Your task to perform on an android device: set the timer Image 0: 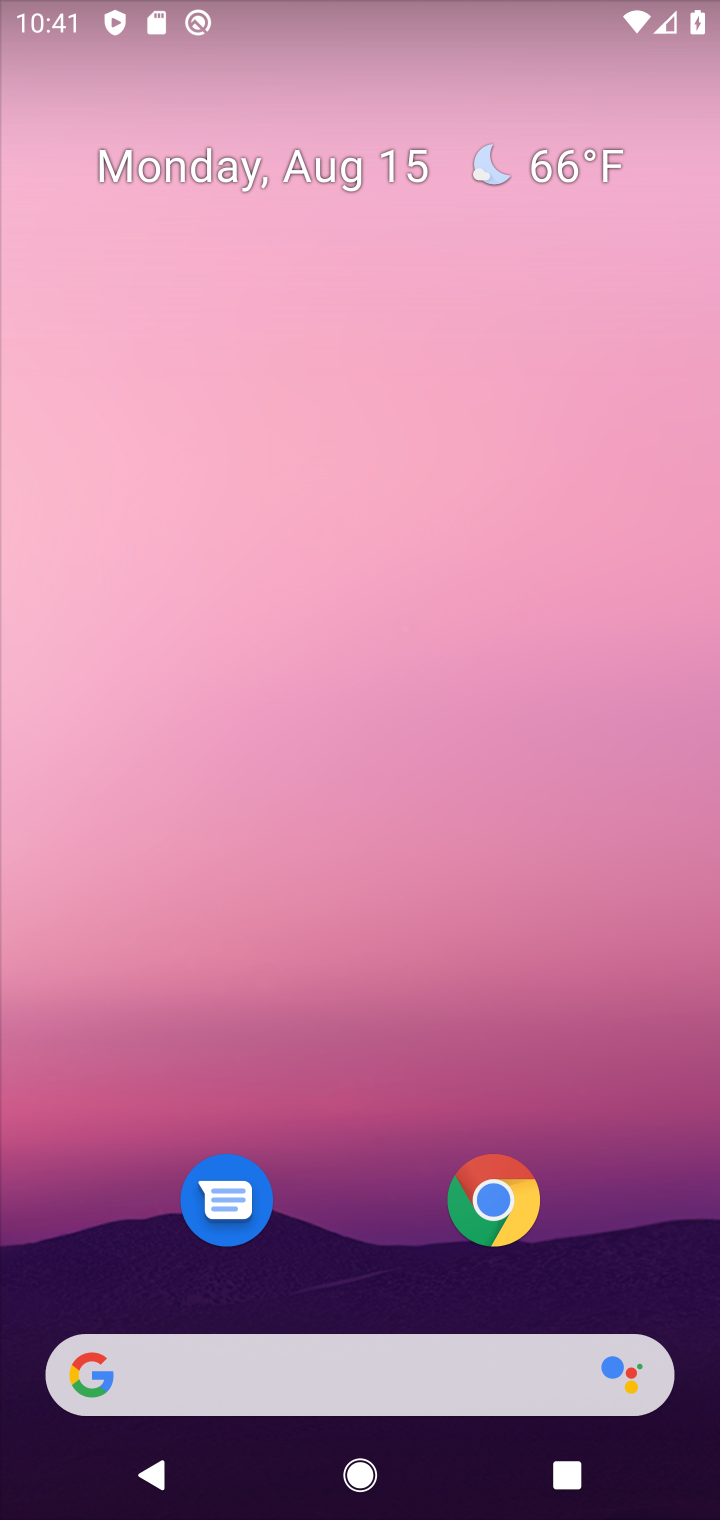
Step 0: drag from (365, 1196) to (370, 404)
Your task to perform on an android device: set the timer Image 1: 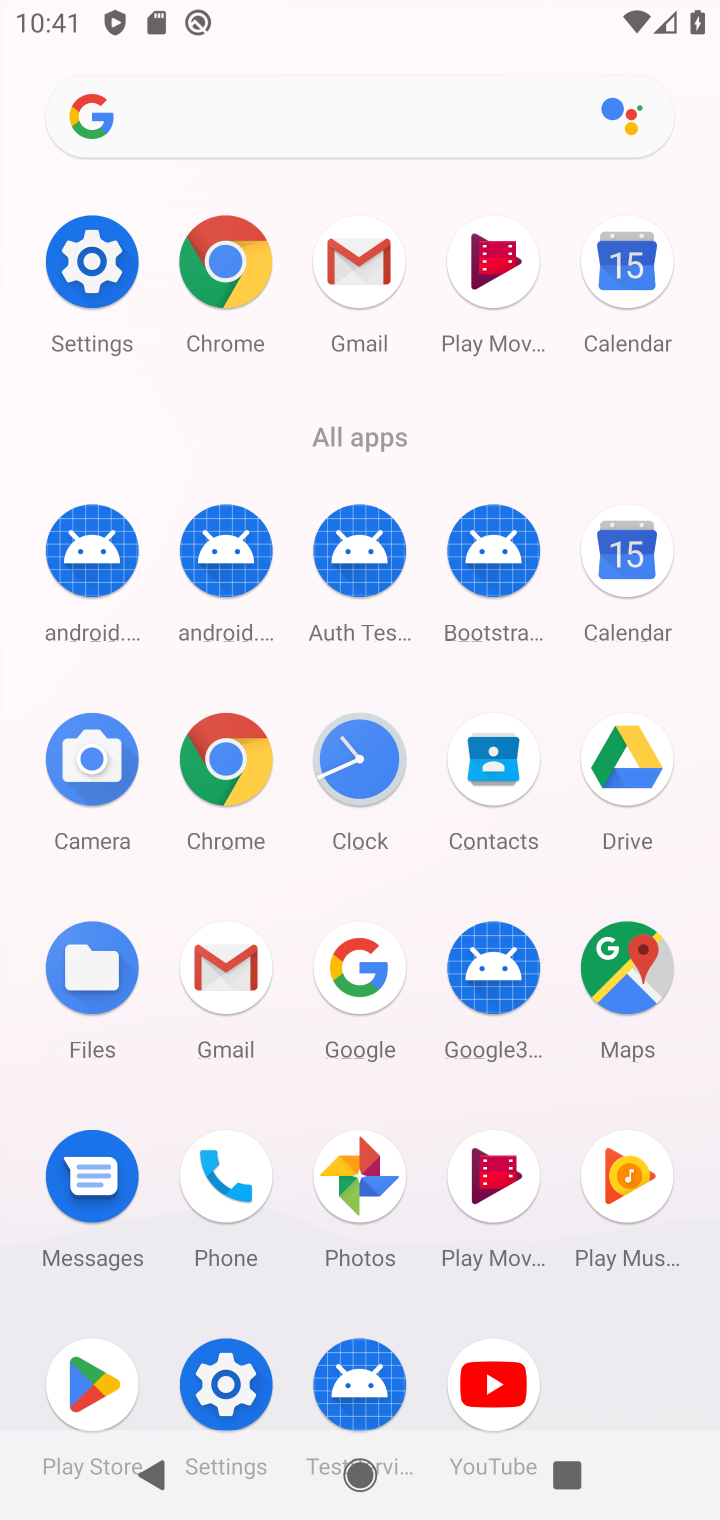
Step 1: click (362, 756)
Your task to perform on an android device: set the timer Image 2: 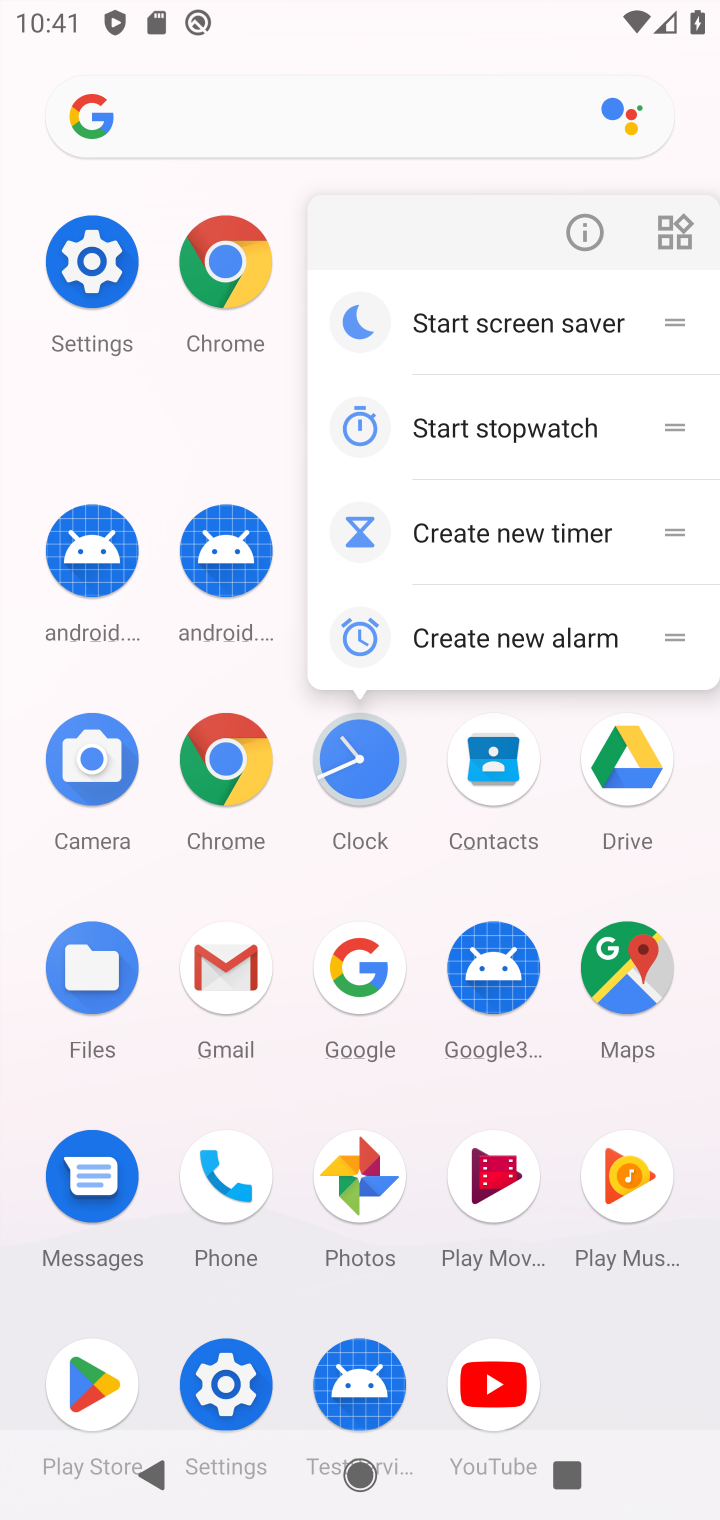
Step 2: click (355, 795)
Your task to perform on an android device: set the timer Image 3: 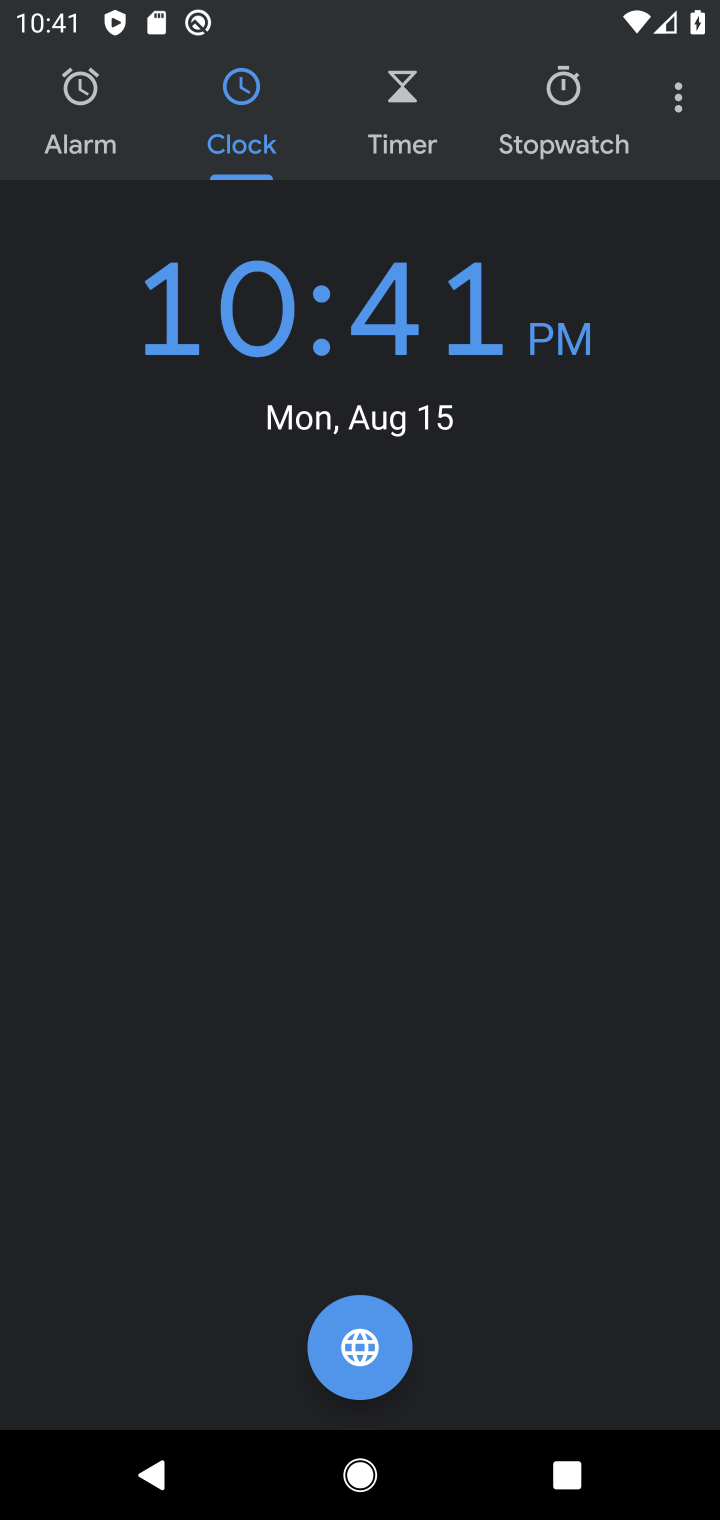
Step 3: click (384, 112)
Your task to perform on an android device: set the timer Image 4: 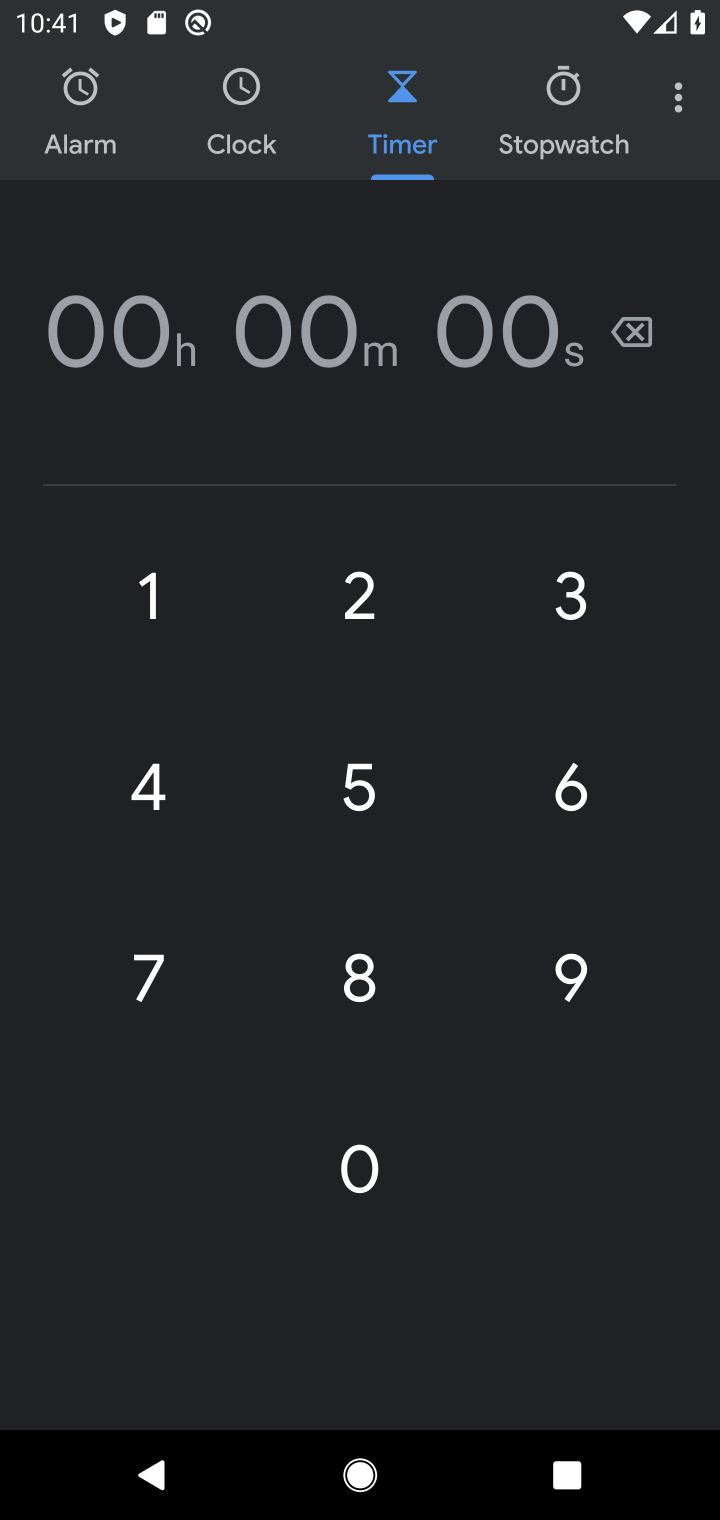
Step 4: click (361, 975)
Your task to perform on an android device: set the timer Image 5: 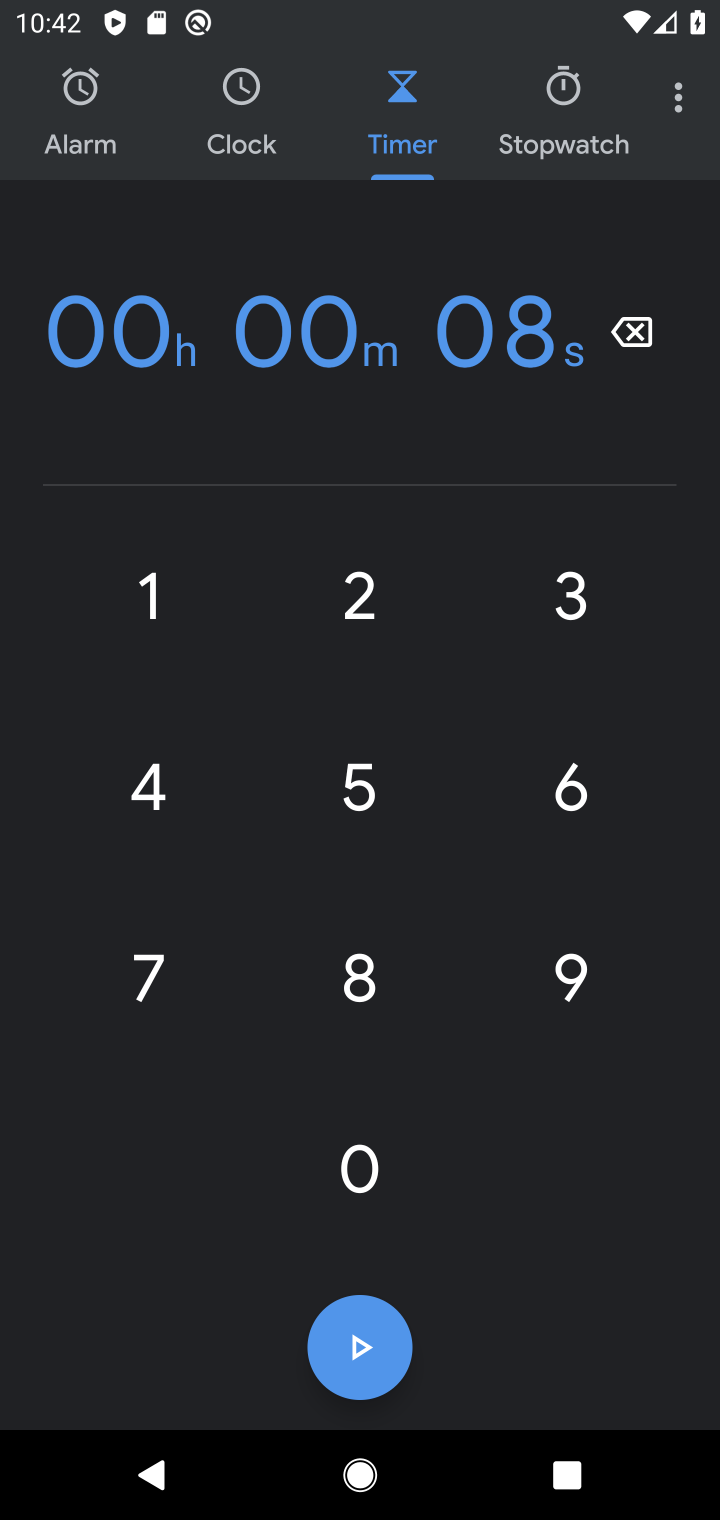
Step 5: click (128, 968)
Your task to perform on an android device: set the timer Image 6: 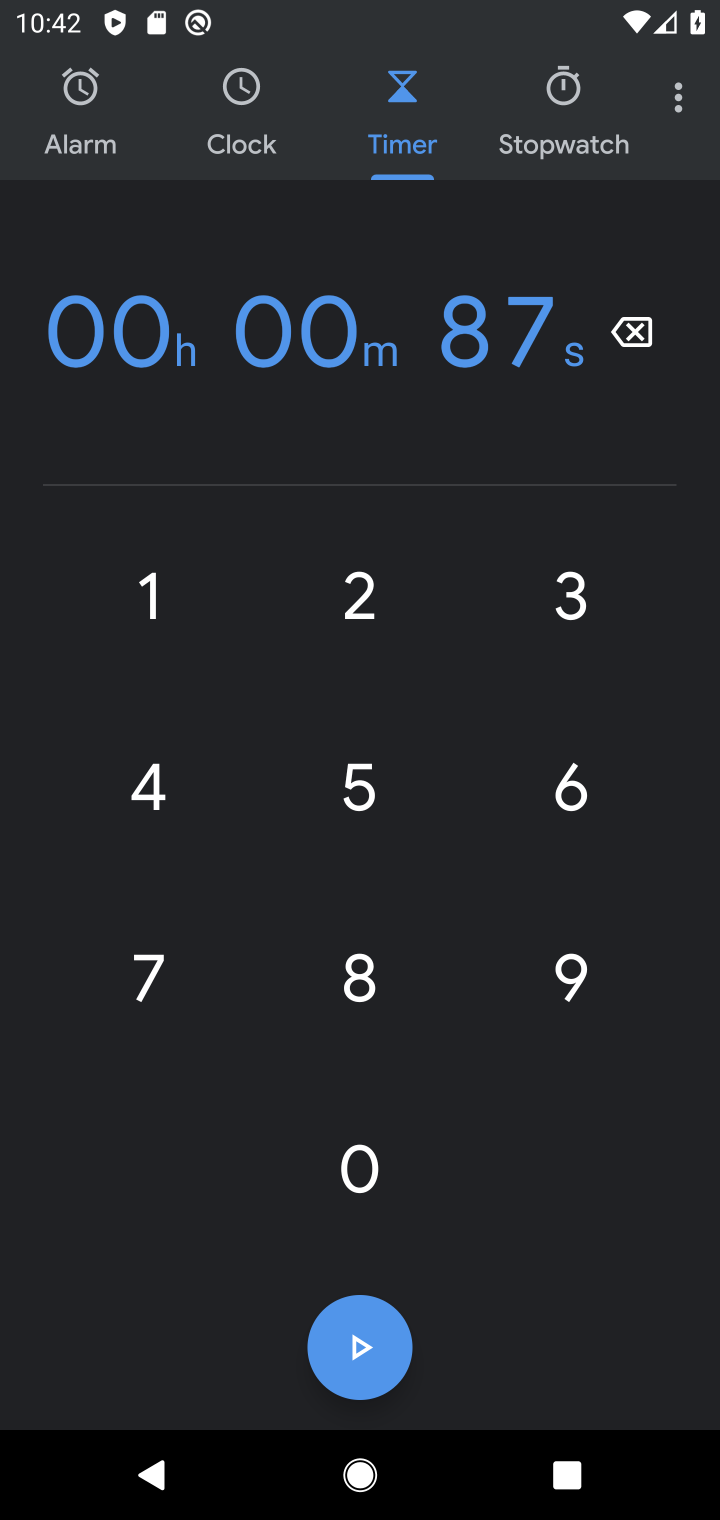
Step 6: click (135, 732)
Your task to perform on an android device: set the timer Image 7: 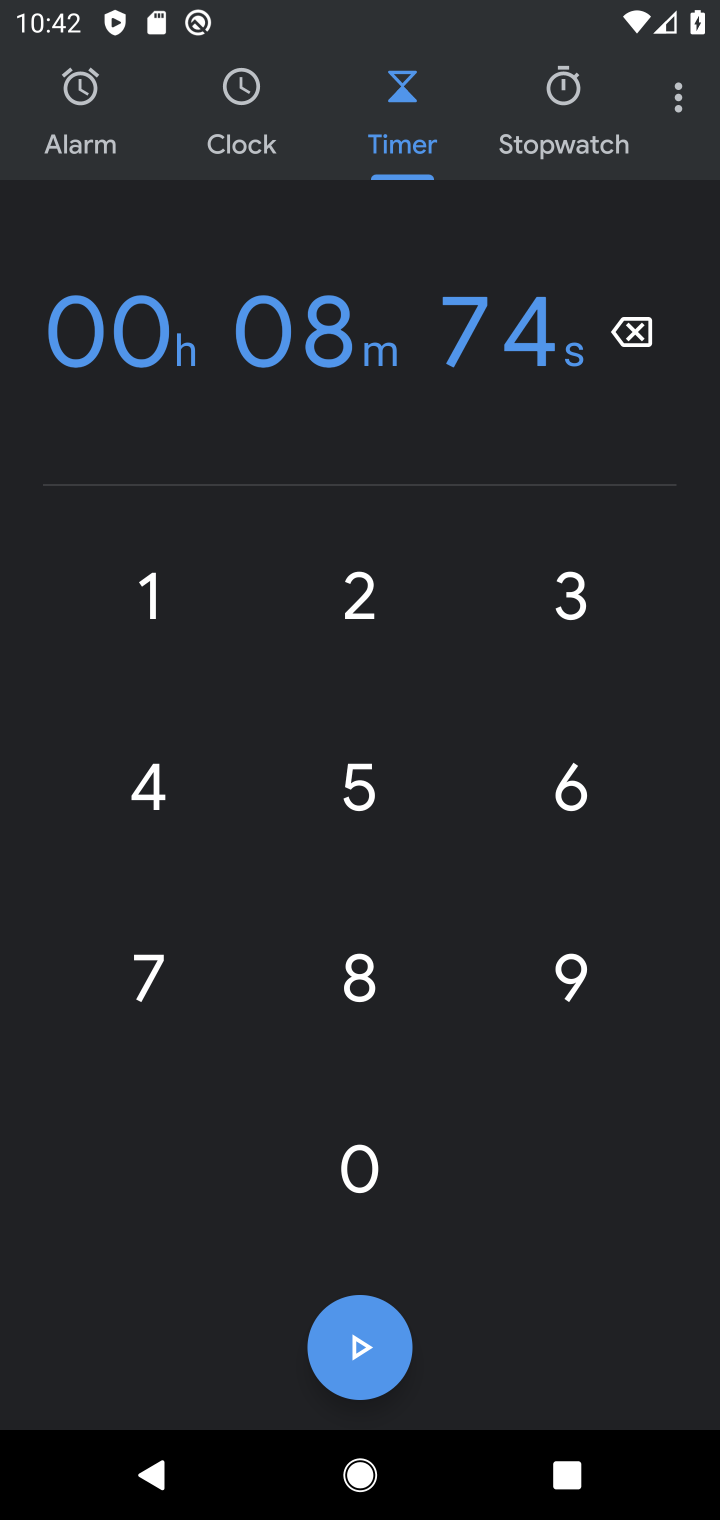
Step 7: click (352, 1291)
Your task to perform on an android device: set the timer Image 8: 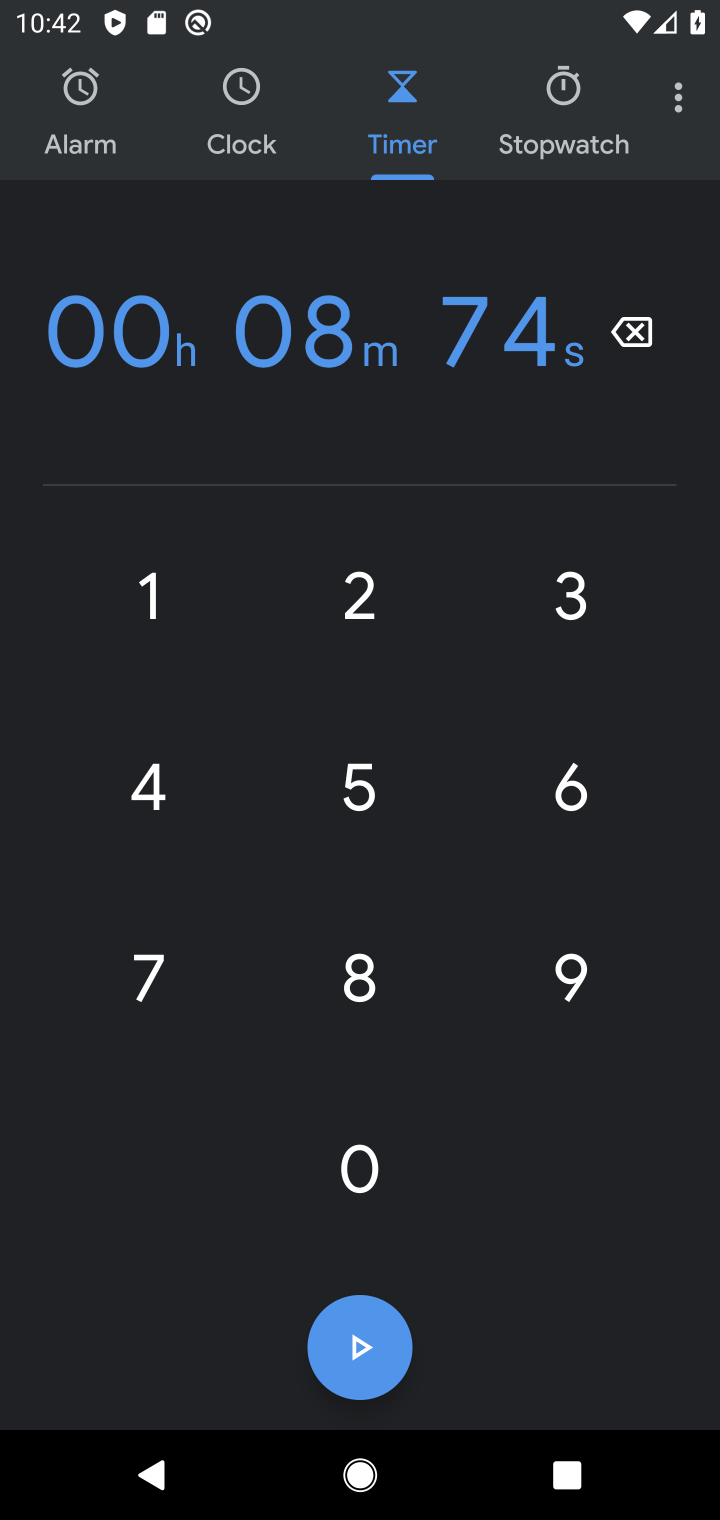
Step 8: click (375, 1333)
Your task to perform on an android device: set the timer Image 9: 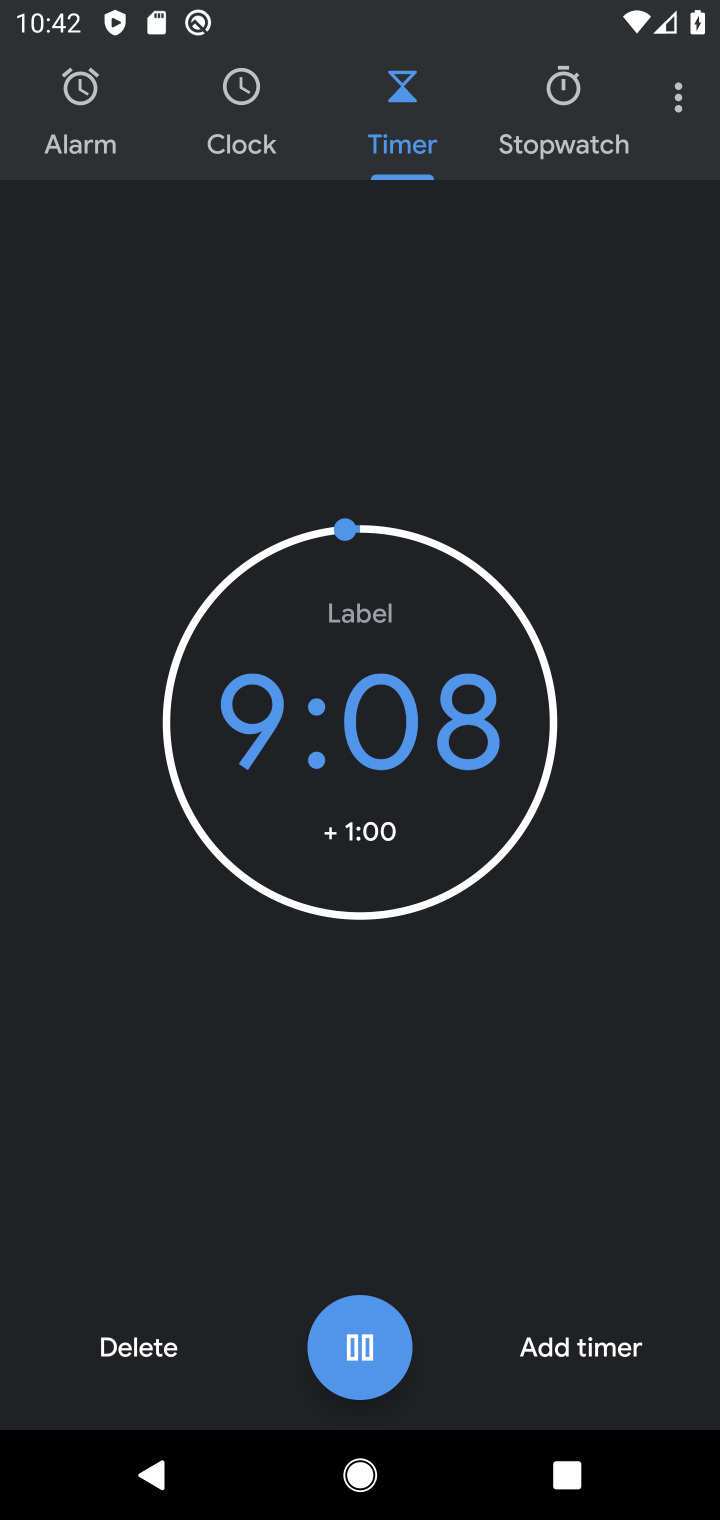
Step 9: task complete